Your task to perform on an android device: Toggle the flashlight Image 0: 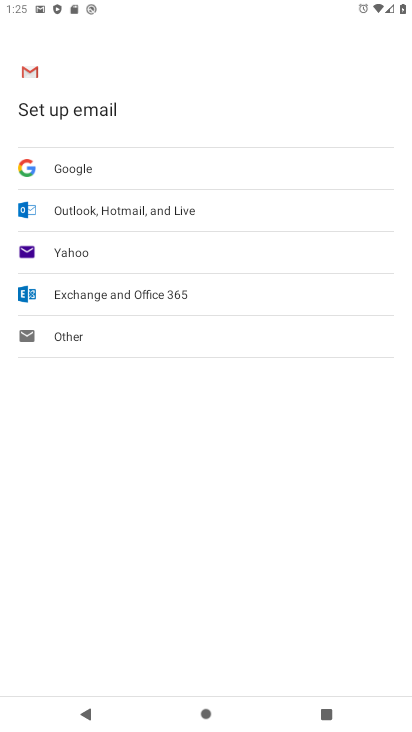
Step 0: press home button
Your task to perform on an android device: Toggle the flashlight Image 1: 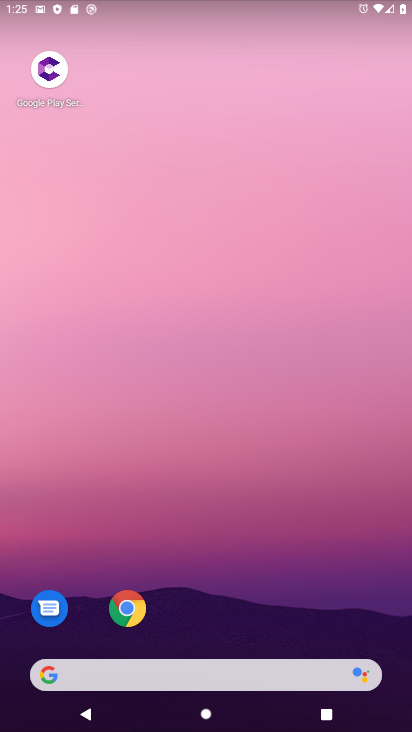
Step 1: drag from (286, 627) to (251, 101)
Your task to perform on an android device: Toggle the flashlight Image 2: 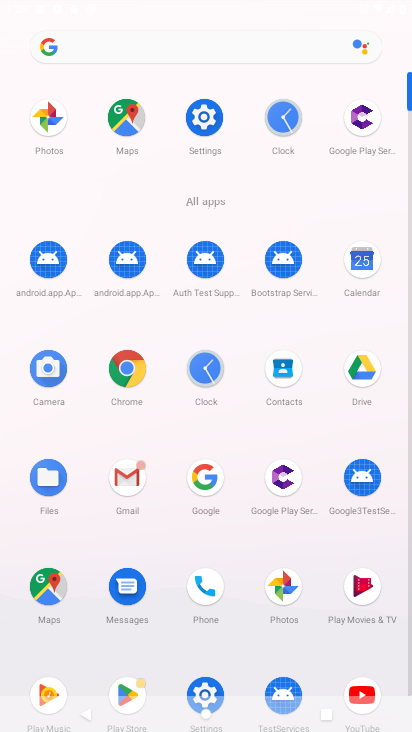
Step 2: click (210, 114)
Your task to perform on an android device: Toggle the flashlight Image 3: 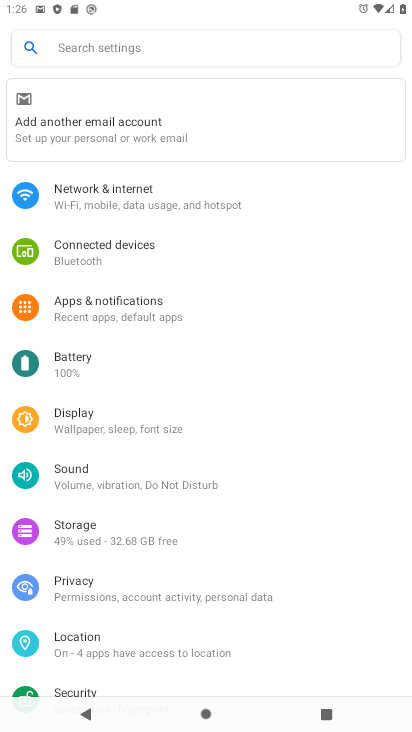
Step 3: click (96, 421)
Your task to perform on an android device: Toggle the flashlight Image 4: 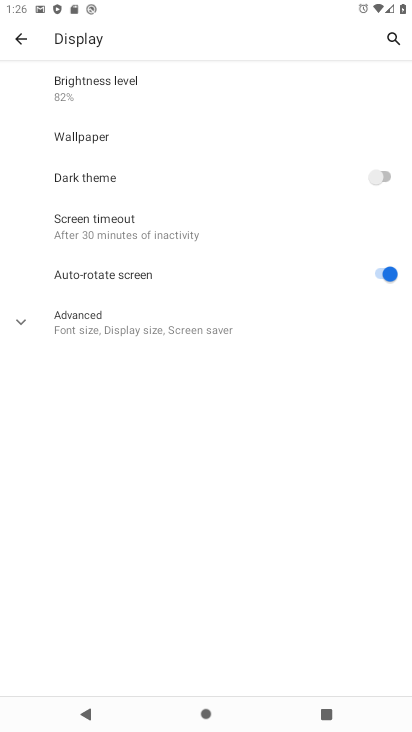
Step 4: click (143, 236)
Your task to perform on an android device: Toggle the flashlight Image 5: 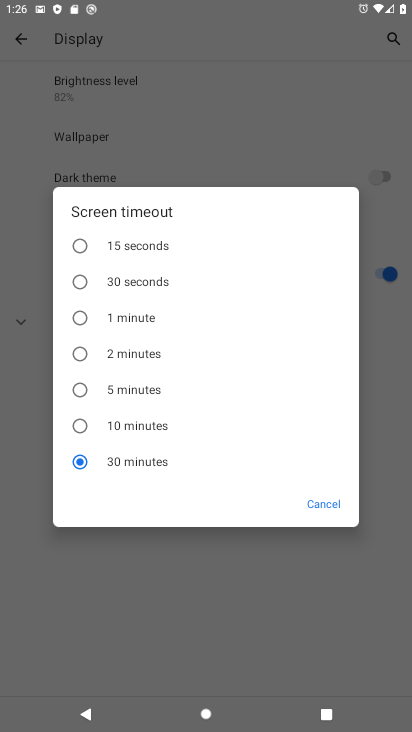
Step 5: task complete